Your task to perform on an android device: remove spam from my inbox in the gmail app Image 0: 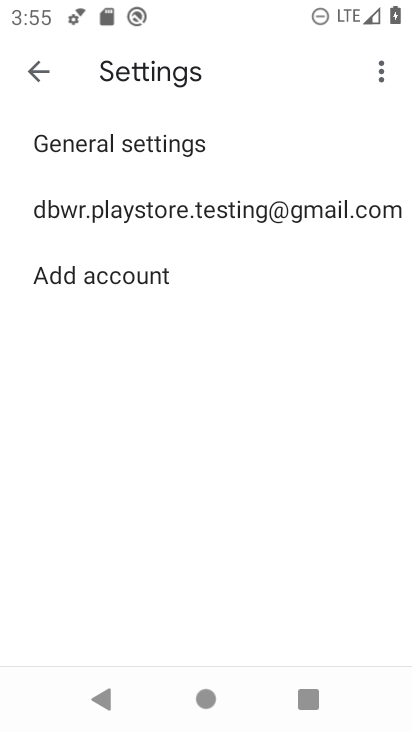
Step 0: press home button
Your task to perform on an android device: remove spam from my inbox in the gmail app Image 1: 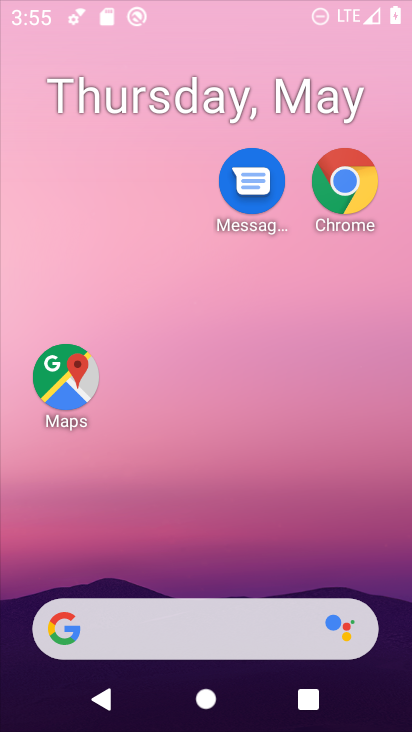
Step 1: drag from (315, 640) to (305, 0)
Your task to perform on an android device: remove spam from my inbox in the gmail app Image 2: 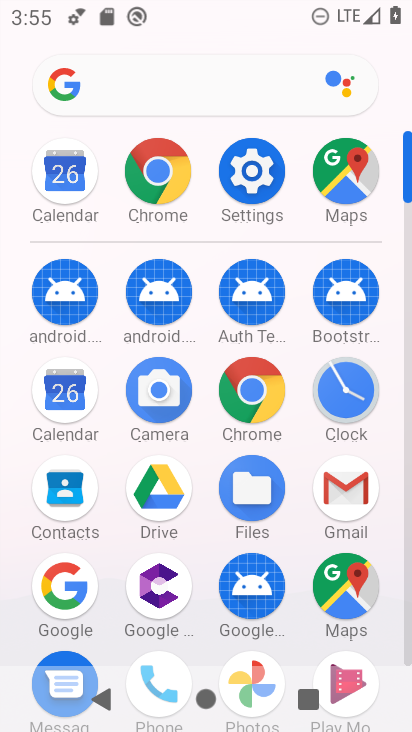
Step 2: click (331, 494)
Your task to perform on an android device: remove spam from my inbox in the gmail app Image 3: 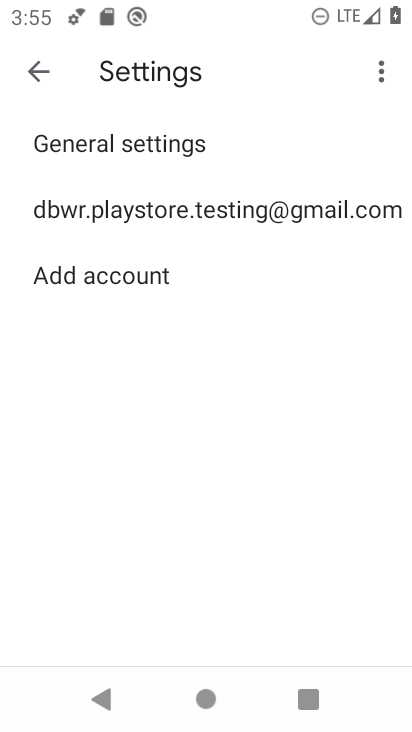
Step 3: press back button
Your task to perform on an android device: remove spam from my inbox in the gmail app Image 4: 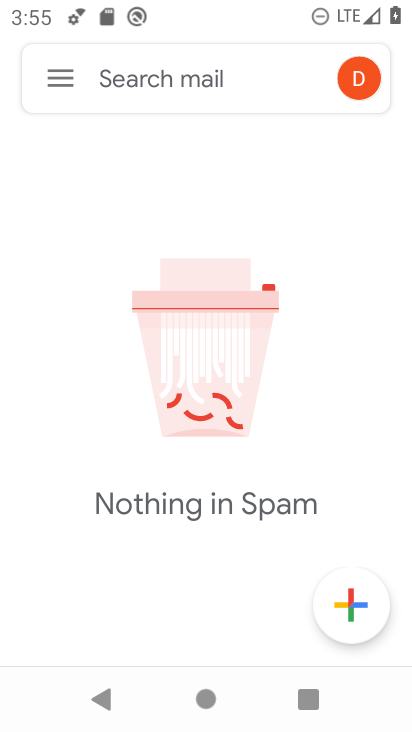
Step 4: click (68, 73)
Your task to perform on an android device: remove spam from my inbox in the gmail app Image 5: 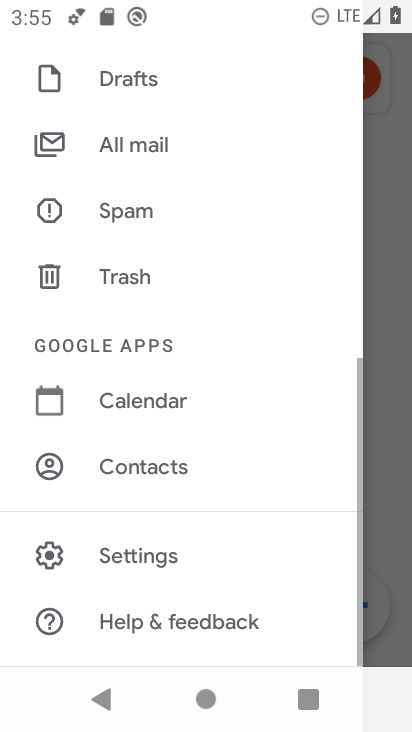
Step 5: click (142, 211)
Your task to perform on an android device: remove spam from my inbox in the gmail app Image 6: 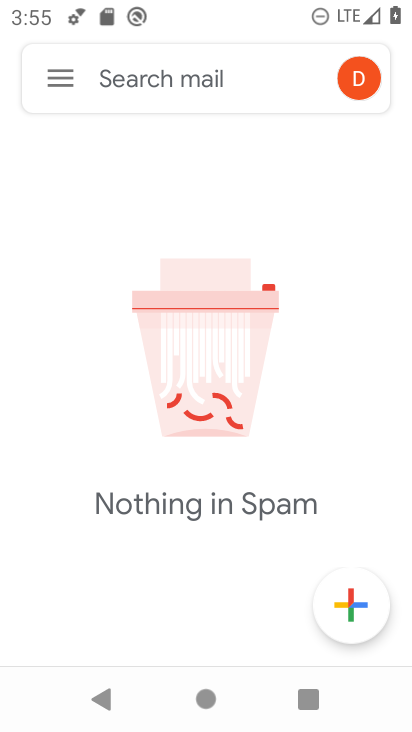
Step 6: task complete